Your task to perform on an android device: Search for sushi restaurants on Maps Image 0: 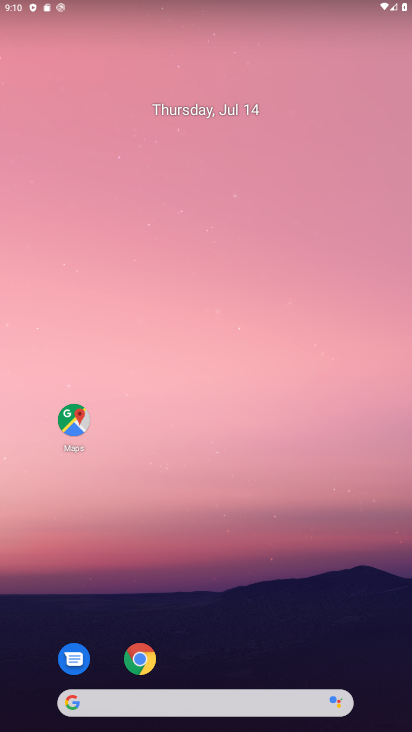
Step 0: drag from (195, 649) to (206, 335)
Your task to perform on an android device: Search for sushi restaurants on Maps Image 1: 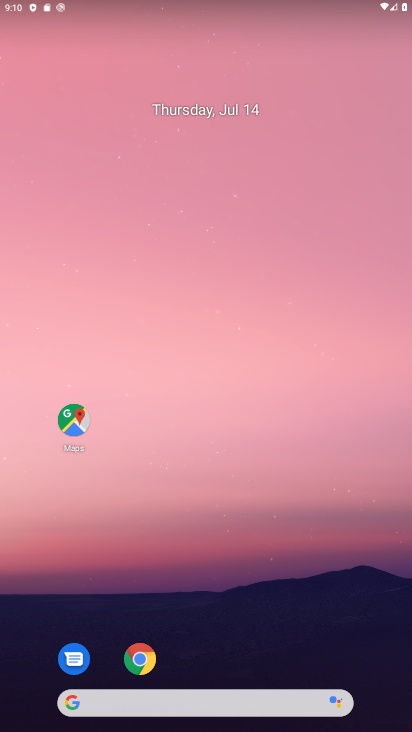
Step 1: click (81, 414)
Your task to perform on an android device: Search for sushi restaurants on Maps Image 2: 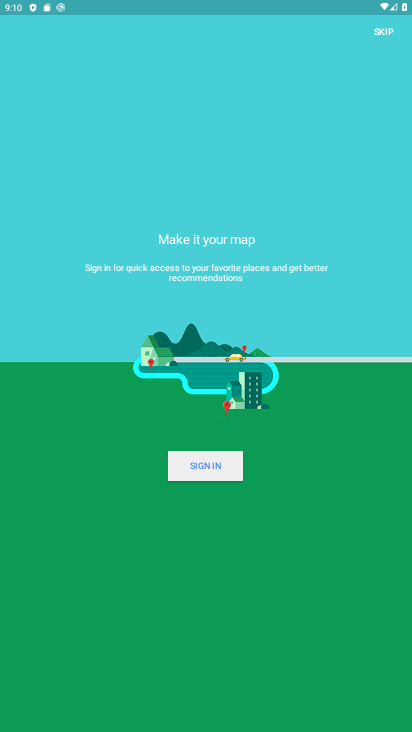
Step 2: click (228, 456)
Your task to perform on an android device: Search for sushi restaurants on Maps Image 3: 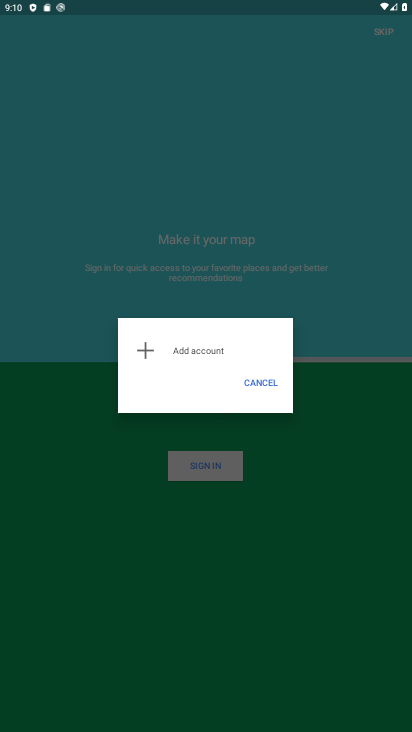
Step 3: task complete